Your task to perform on an android device: Check the weather Image 0: 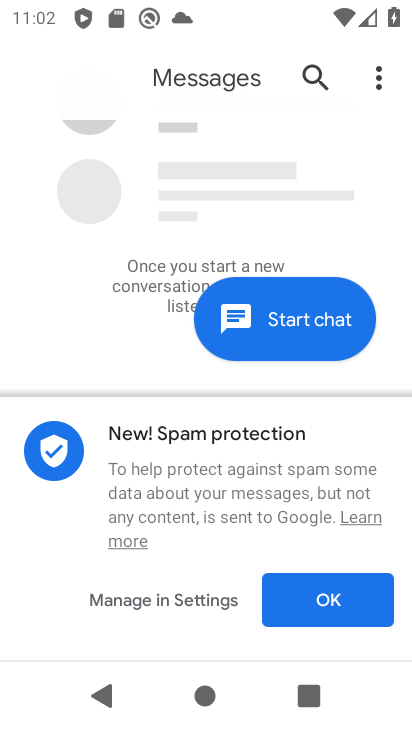
Step 0: press home button
Your task to perform on an android device: Check the weather Image 1: 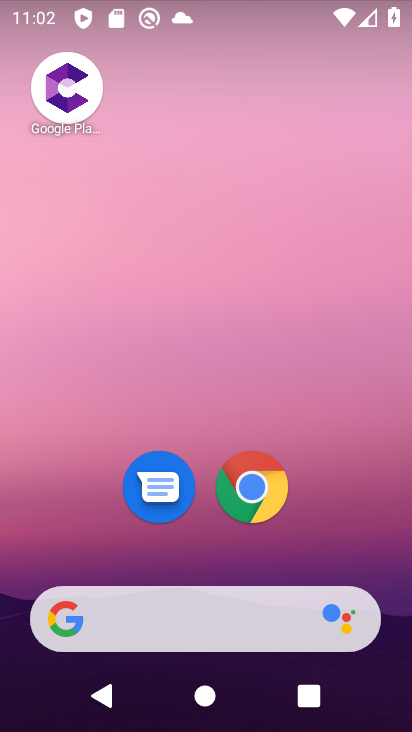
Step 1: drag from (315, 540) to (320, 136)
Your task to perform on an android device: Check the weather Image 2: 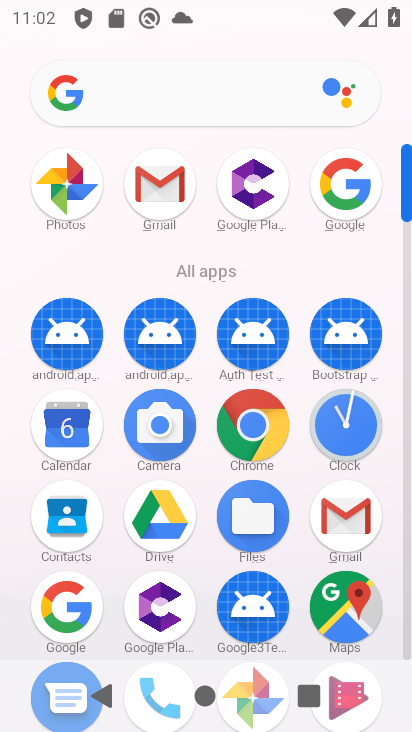
Step 2: drag from (342, 187) to (24, 213)
Your task to perform on an android device: Check the weather Image 3: 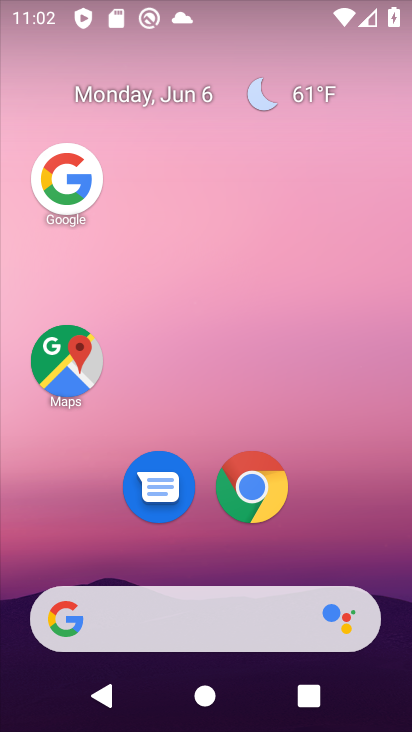
Step 3: click (61, 191)
Your task to perform on an android device: Check the weather Image 4: 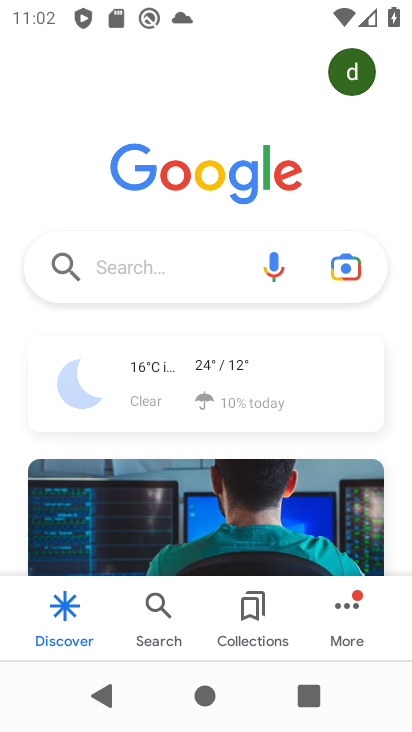
Step 4: click (208, 290)
Your task to perform on an android device: Check the weather Image 5: 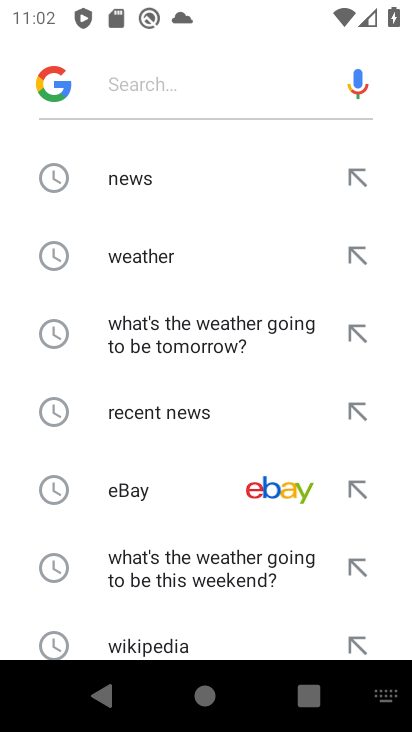
Step 5: click (88, 266)
Your task to perform on an android device: Check the weather Image 6: 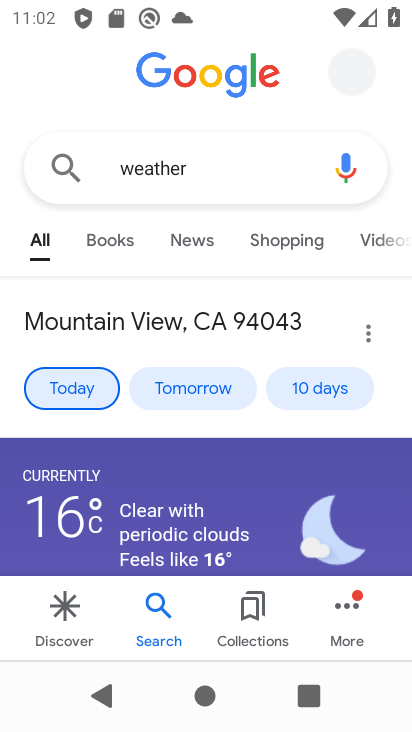
Step 6: task complete